Your task to perform on an android device: change alarm snooze length Image 0: 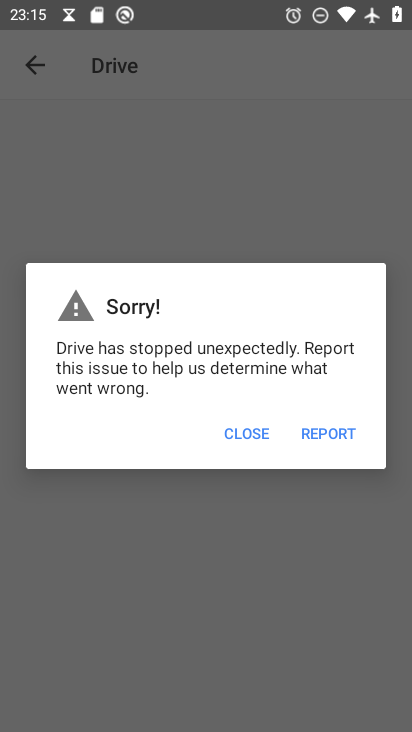
Step 0: press home button
Your task to perform on an android device: change alarm snooze length Image 1: 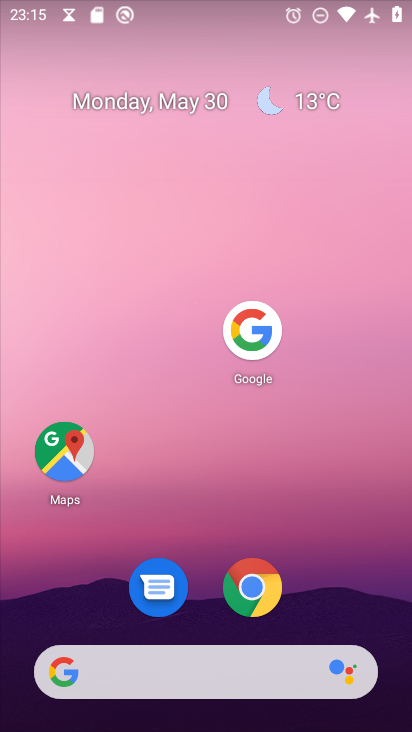
Step 1: drag from (144, 662) to (314, 135)
Your task to perform on an android device: change alarm snooze length Image 2: 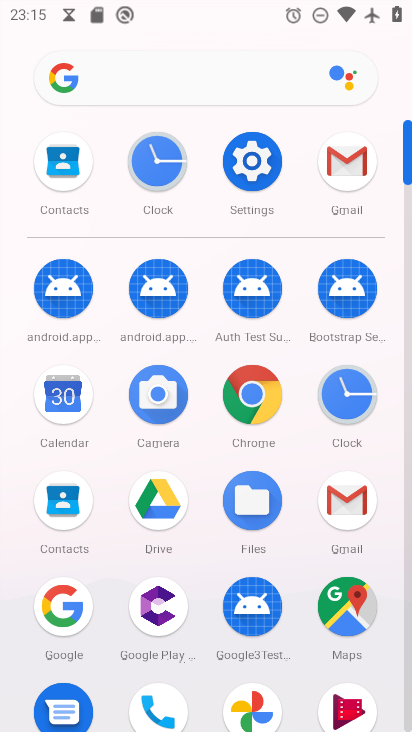
Step 2: click (353, 399)
Your task to perform on an android device: change alarm snooze length Image 3: 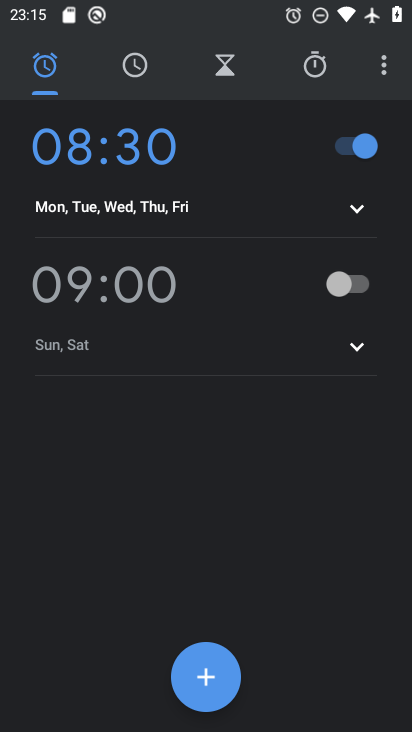
Step 3: click (384, 66)
Your task to perform on an android device: change alarm snooze length Image 4: 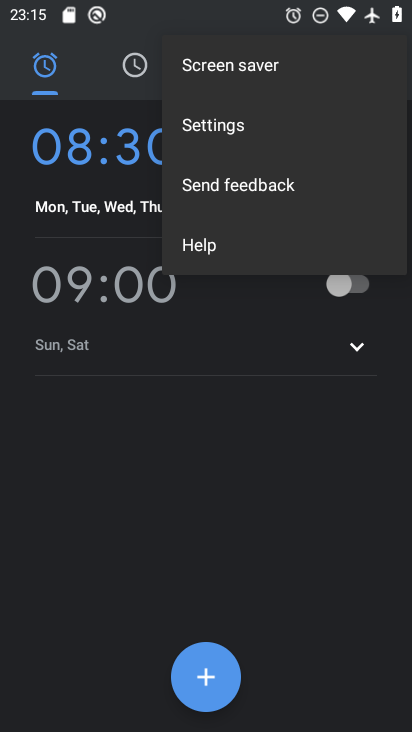
Step 4: click (227, 130)
Your task to perform on an android device: change alarm snooze length Image 5: 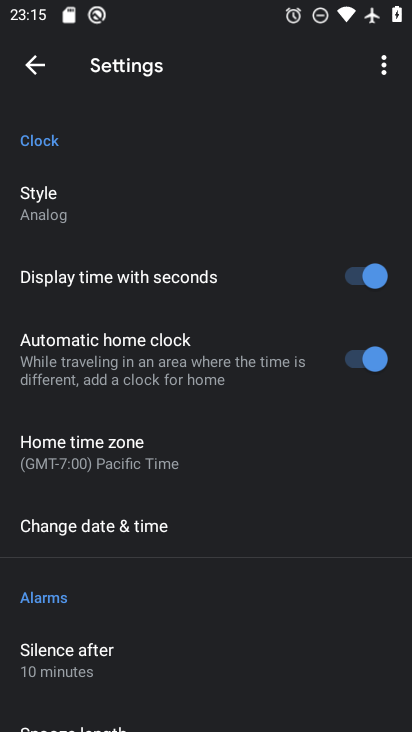
Step 5: drag from (183, 608) to (310, 222)
Your task to perform on an android device: change alarm snooze length Image 6: 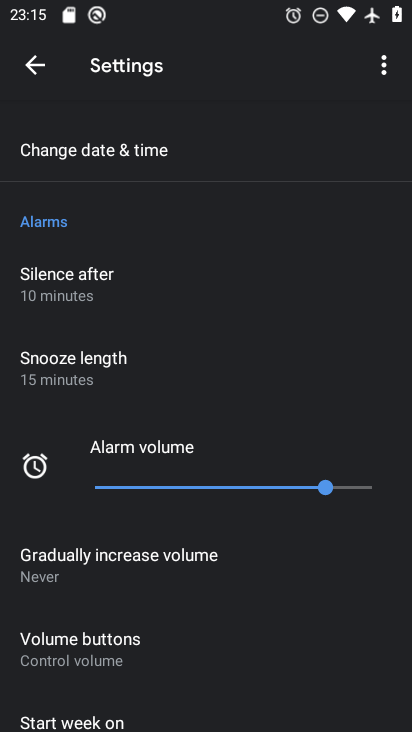
Step 6: click (93, 359)
Your task to perform on an android device: change alarm snooze length Image 7: 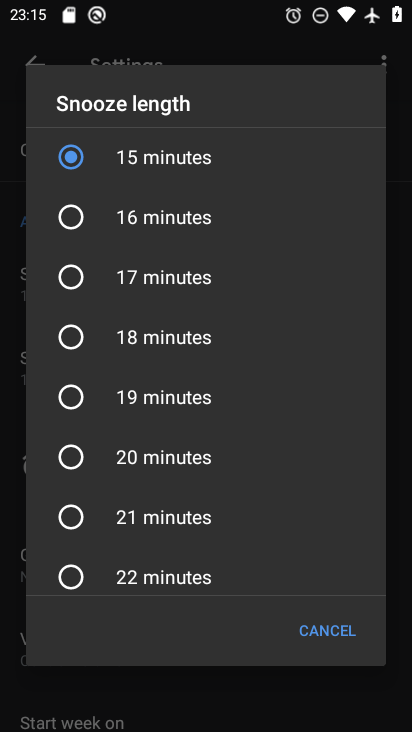
Step 7: click (76, 271)
Your task to perform on an android device: change alarm snooze length Image 8: 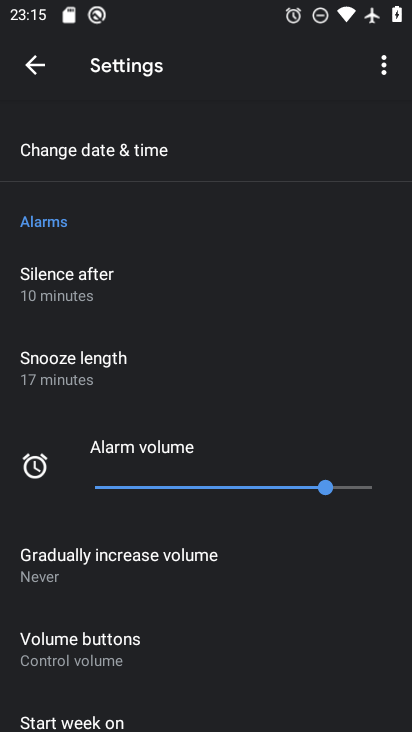
Step 8: task complete